Your task to perform on an android device: turn on improve location accuracy Image 0: 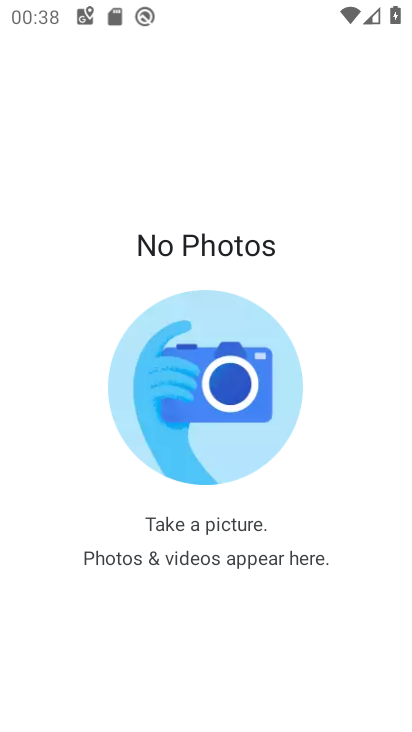
Step 0: drag from (218, 723) to (92, 85)
Your task to perform on an android device: turn on improve location accuracy Image 1: 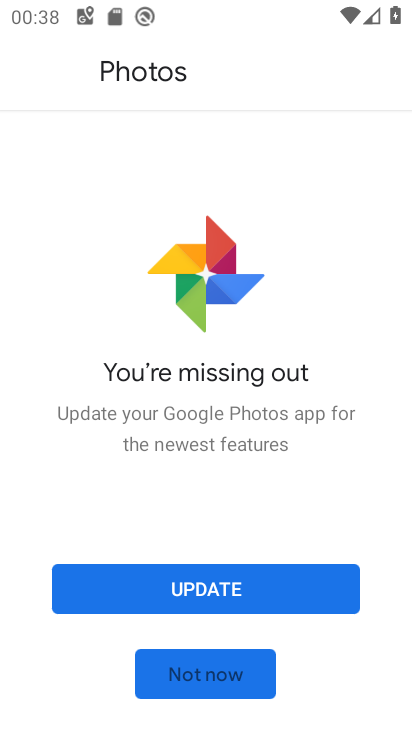
Step 1: press home button
Your task to perform on an android device: turn on improve location accuracy Image 2: 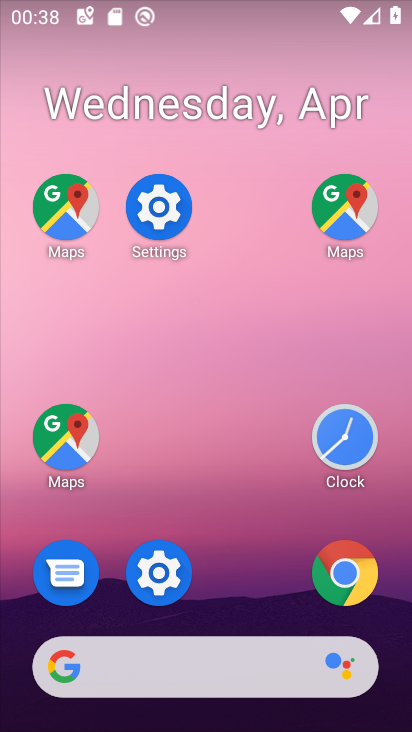
Step 2: click (156, 210)
Your task to perform on an android device: turn on improve location accuracy Image 3: 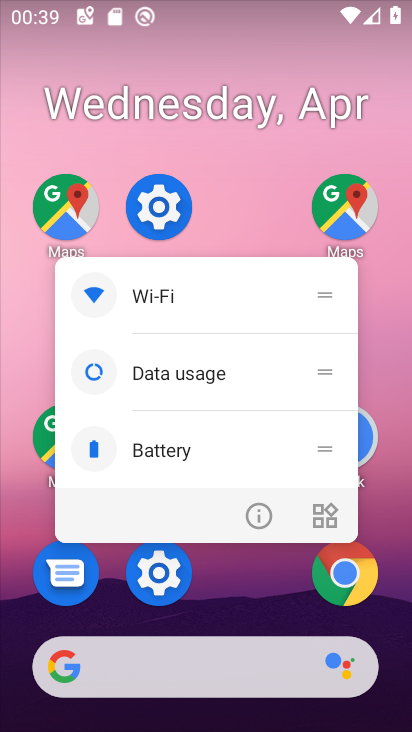
Step 3: click (154, 197)
Your task to perform on an android device: turn on improve location accuracy Image 4: 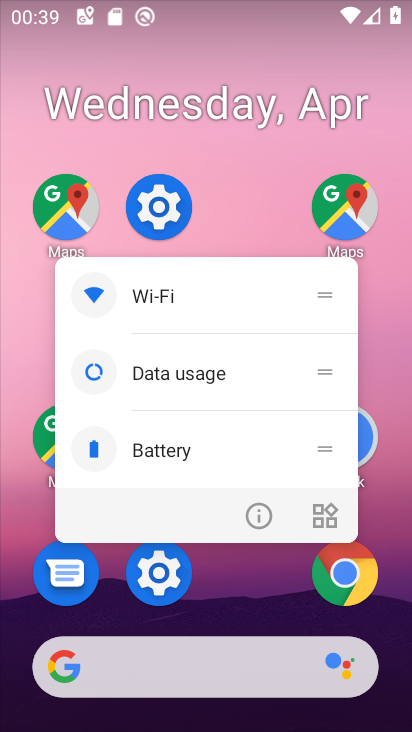
Step 4: click (164, 224)
Your task to perform on an android device: turn on improve location accuracy Image 5: 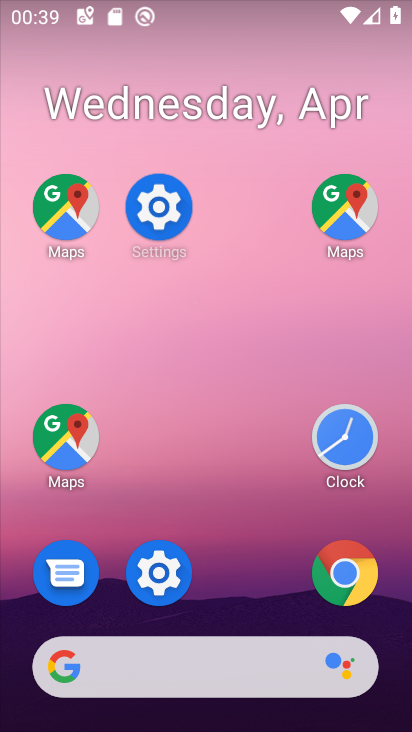
Step 5: click (153, 182)
Your task to perform on an android device: turn on improve location accuracy Image 6: 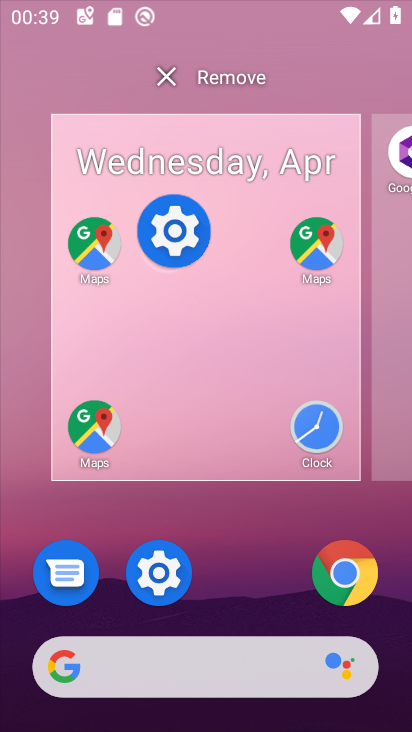
Step 6: click (161, 235)
Your task to perform on an android device: turn on improve location accuracy Image 7: 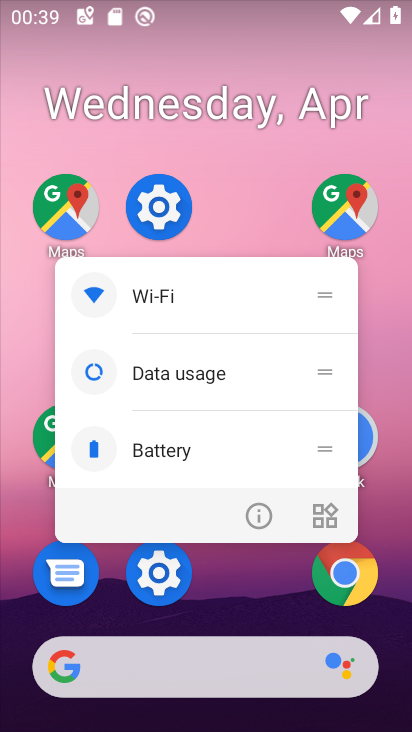
Step 7: drag from (261, 597) to (182, 208)
Your task to perform on an android device: turn on improve location accuracy Image 8: 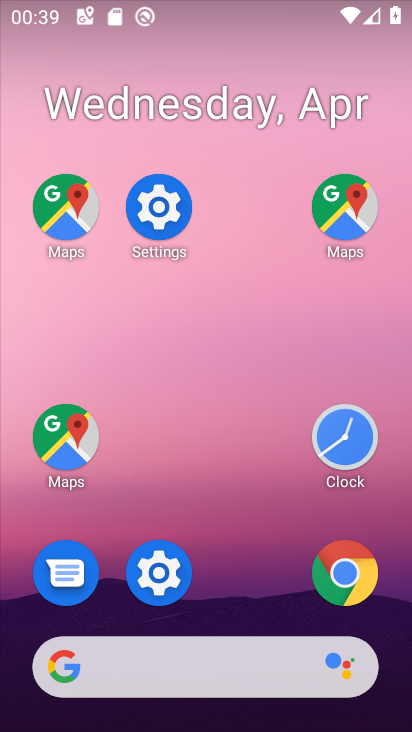
Step 8: click (201, 194)
Your task to perform on an android device: turn on improve location accuracy Image 9: 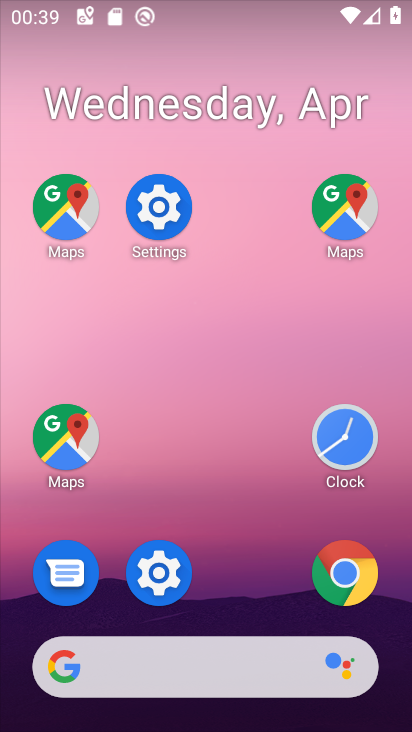
Step 9: click (201, 194)
Your task to perform on an android device: turn on improve location accuracy Image 10: 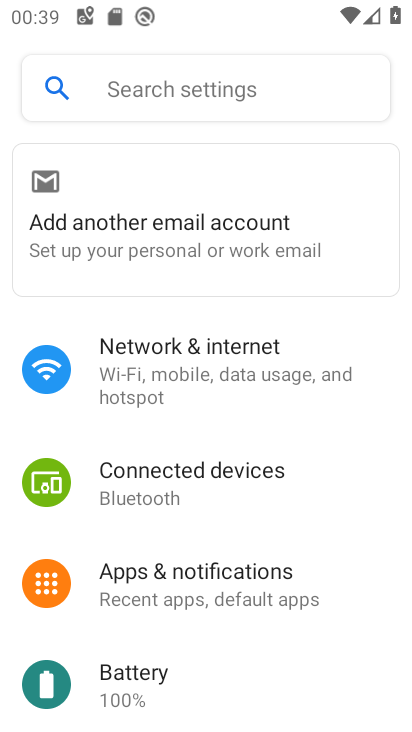
Step 10: drag from (241, 359) to (245, 205)
Your task to perform on an android device: turn on improve location accuracy Image 11: 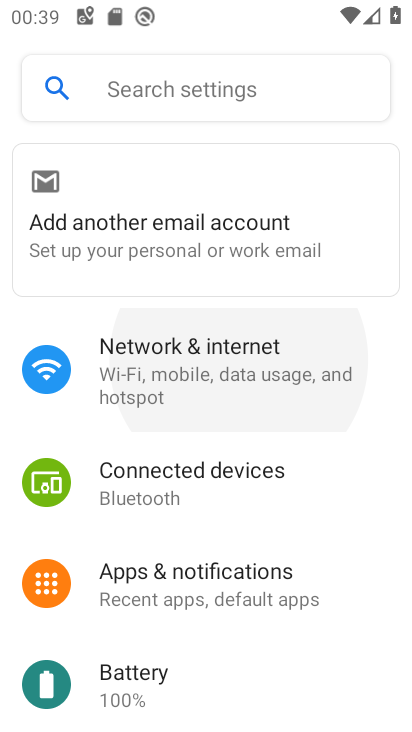
Step 11: drag from (146, 235) to (122, 377)
Your task to perform on an android device: turn on improve location accuracy Image 12: 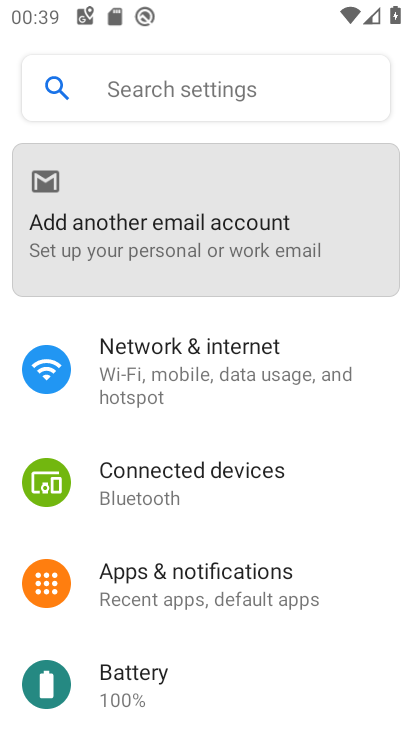
Step 12: drag from (202, 561) to (169, 344)
Your task to perform on an android device: turn on improve location accuracy Image 13: 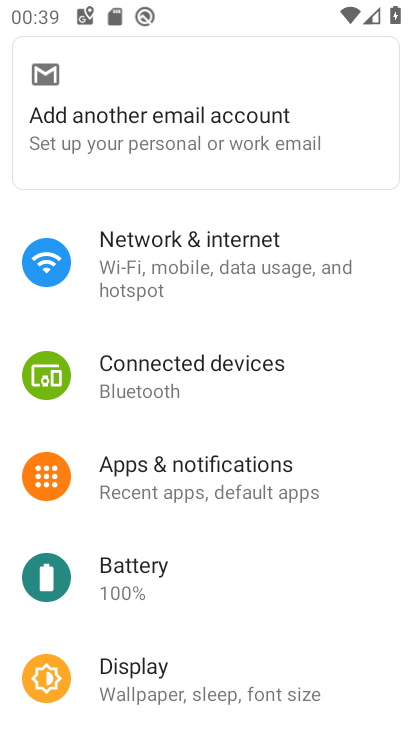
Step 13: click (199, 345)
Your task to perform on an android device: turn on improve location accuracy Image 14: 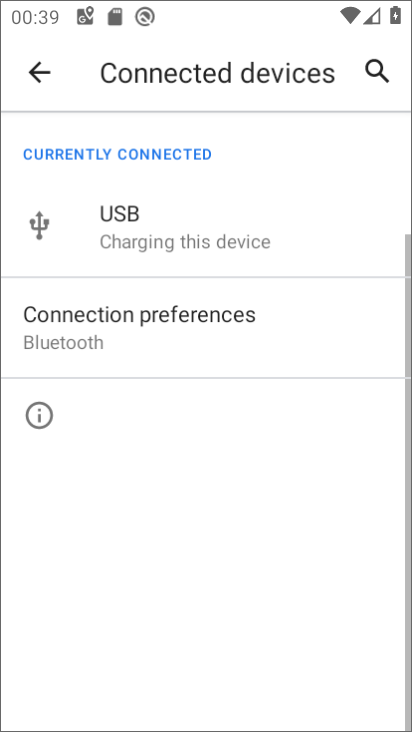
Step 14: drag from (235, 398) to (227, 305)
Your task to perform on an android device: turn on improve location accuracy Image 15: 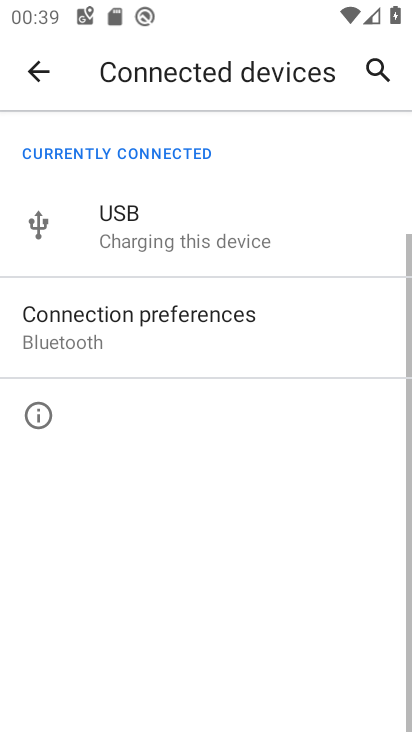
Step 15: click (29, 61)
Your task to perform on an android device: turn on improve location accuracy Image 16: 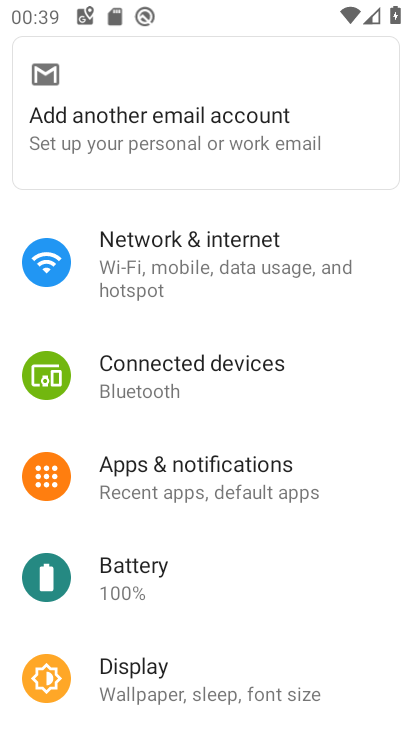
Step 16: drag from (153, 544) to (146, 318)
Your task to perform on an android device: turn on improve location accuracy Image 17: 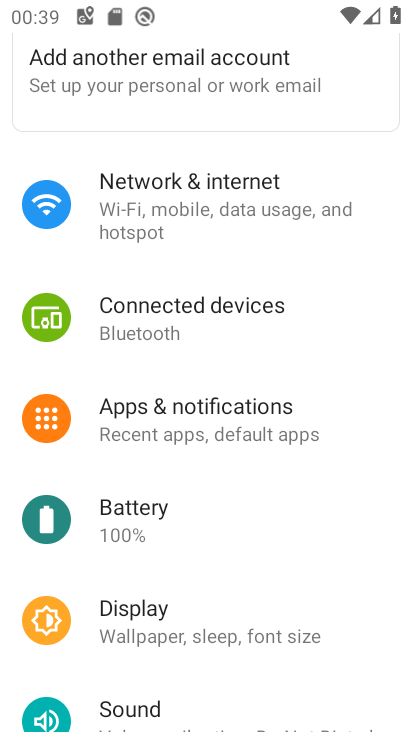
Step 17: drag from (178, 242) to (158, 157)
Your task to perform on an android device: turn on improve location accuracy Image 18: 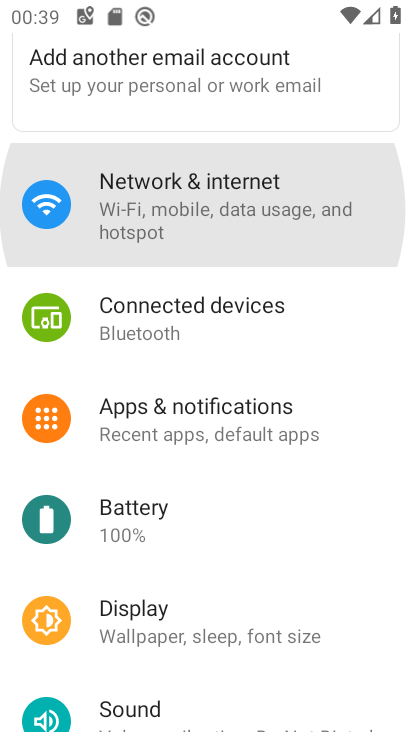
Step 18: drag from (198, 502) to (175, 93)
Your task to perform on an android device: turn on improve location accuracy Image 19: 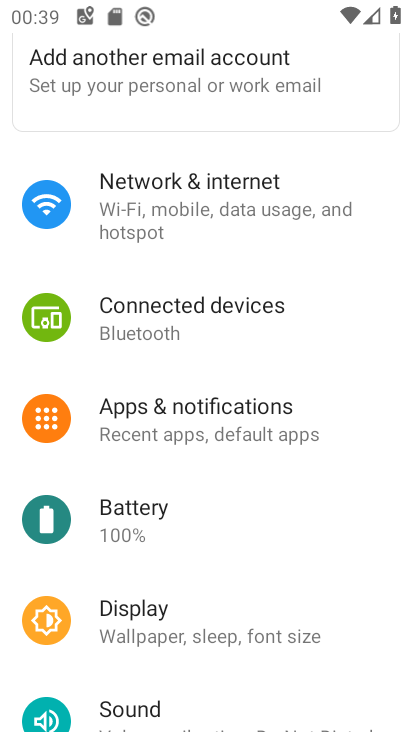
Step 19: drag from (235, 567) to (184, 140)
Your task to perform on an android device: turn on improve location accuracy Image 20: 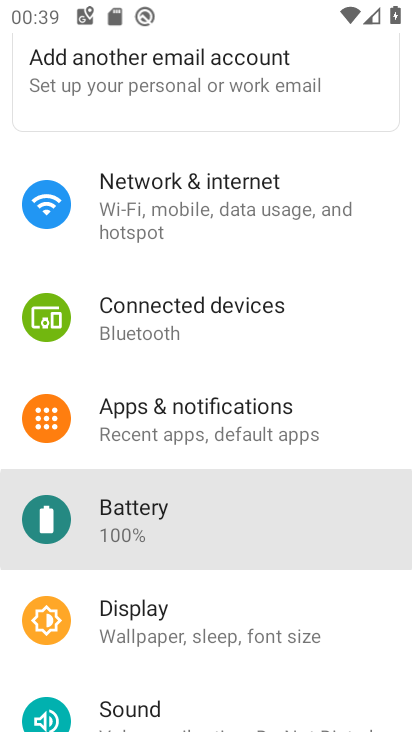
Step 20: drag from (167, 576) to (116, 67)
Your task to perform on an android device: turn on improve location accuracy Image 21: 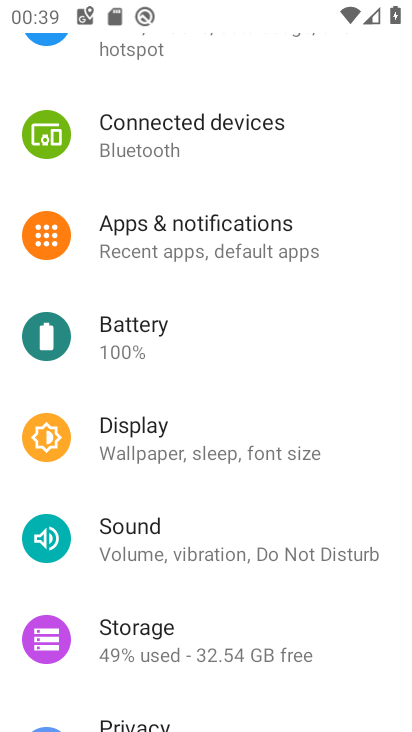
Step 21: drag from (186, 503) to (155, 146)
Your task to perform on an android device: turn on improve location accuracy Image 22: 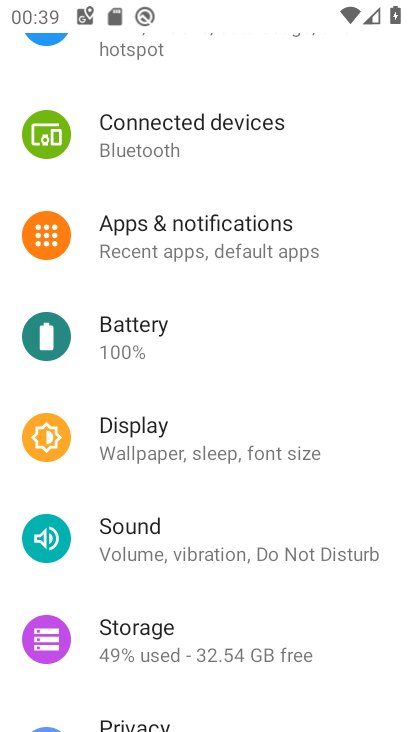
Step 22: drag from (194, 610) to (146, 155)
Your task to perform on an android device: turn on improve location accuracy Image 23: 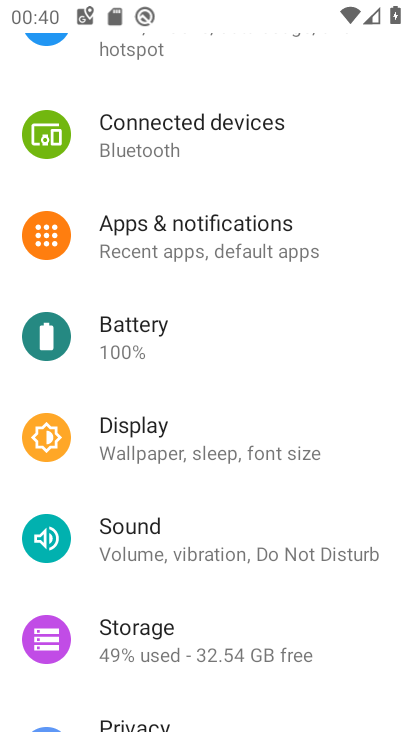
Step 23: drag from (293, 501) to (246, 208)
Your task to perform on an android device: turn on improve location accuracy Image 24: 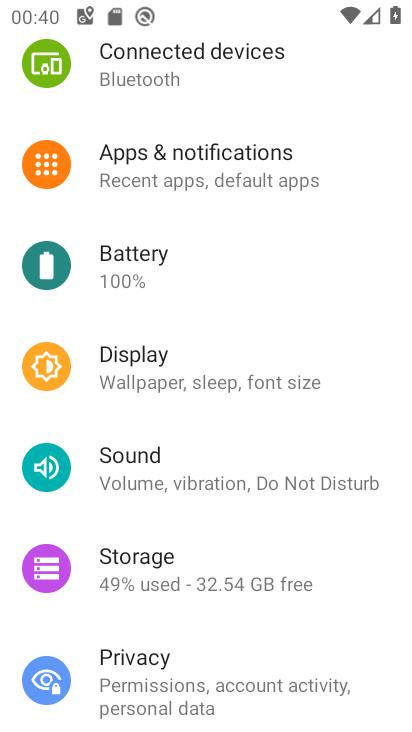
Step 24: drag from (229, 452) to (189, 233)
Your task to perform on an android device: turn on improve location accuracy Image 25: 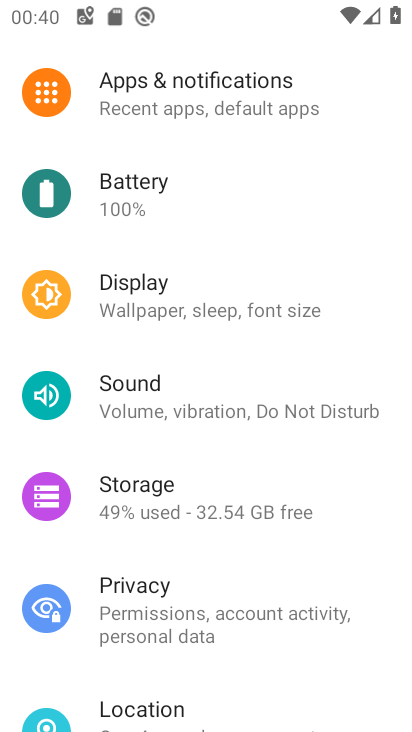
Step 25: drag from (188, 439) to (162, 284)
Your task to perform on an android device: turn on improve location accuracy Image 26: 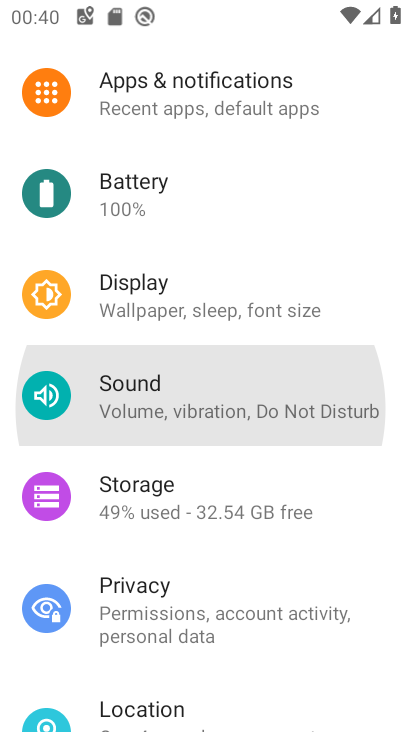
Step 26: click (97, 247)
Your task to perform on an android device: turn on improve location accuracy Image 27: 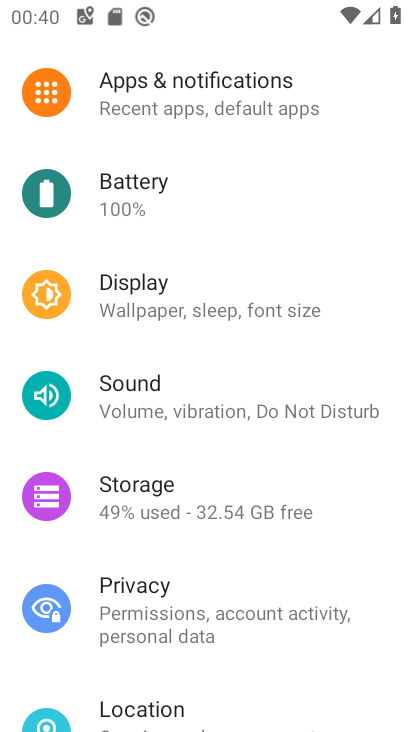
Step 27: drag from (160, 567) to (150, 234)
Your task to perform on an android device: turn on improve location accuracy Image 28: 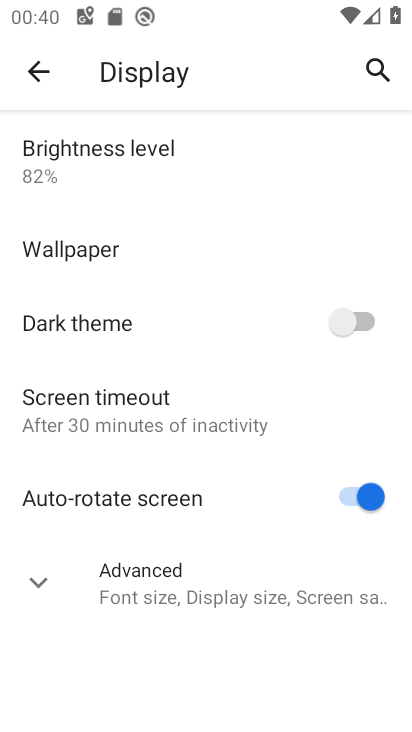
Step 28: click (35, 67)
Your task to perform on an android device: turn on improve location accuracy Image 29: 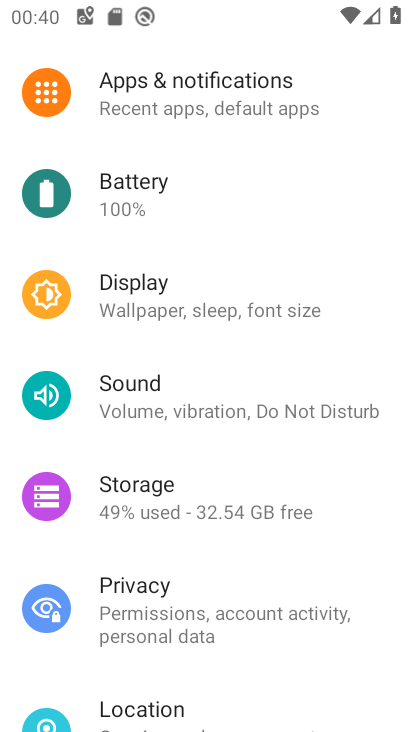
Step 29: click (145, 690)
Your task to perform on an android device: turn on improve location accuracy Image 30: 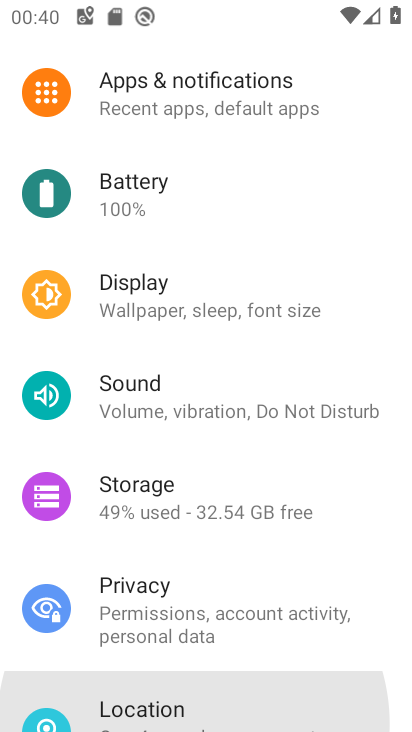
Step 30: click (149, 692)
Your task to perform on an android device: turn on improve location accuracy Image 31: 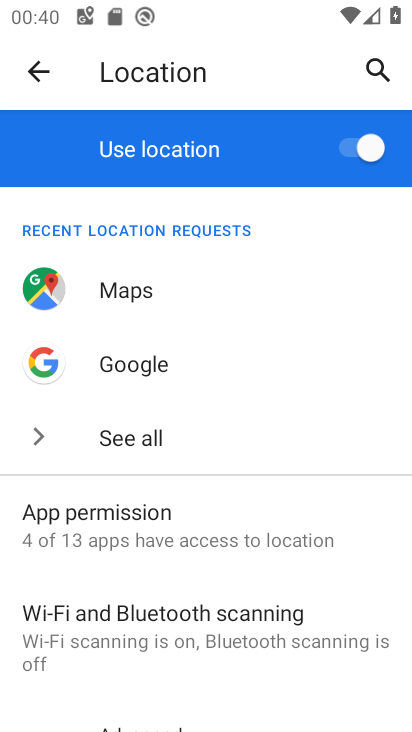
Step 31: click (104, 521)
Your task to perform on an android device: turn on improve location accuracy Image 32: 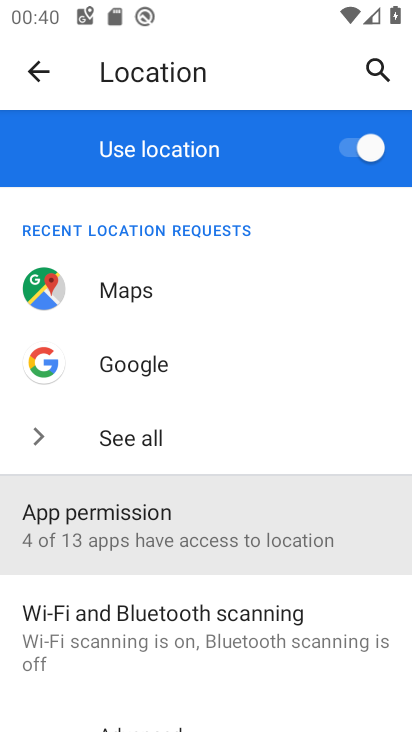
Step 32: click (104, 521)
Your task to perform on an android device: turn on improve location accuracy Image 33: 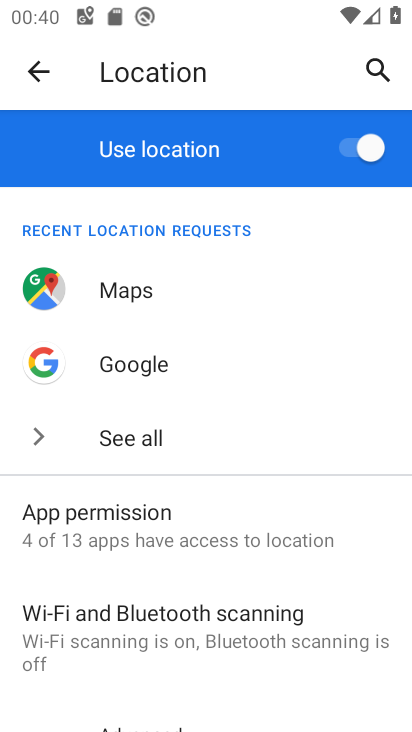
Step 33: click (104, 521)
Your task to perform on an android device: turn on improve location accuracy Image 34: 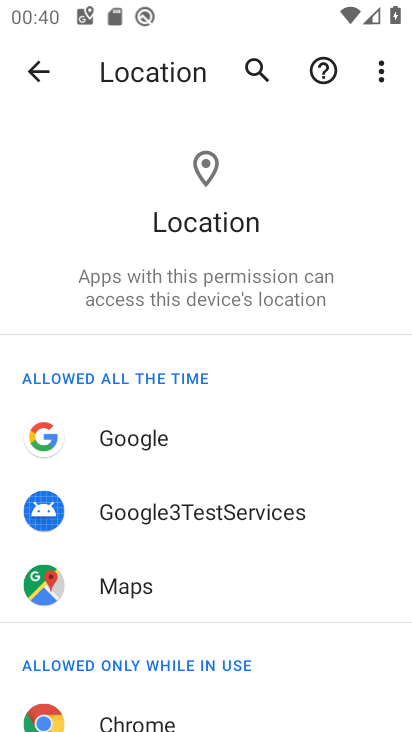
Step 34: drag from (192, 518) to (148, 157)
Your task to perform on an android device: turn on improve location accuracy Image 35: 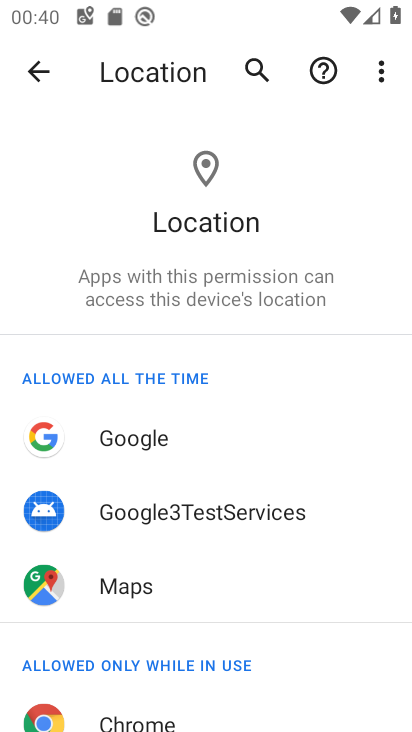
Step 35: click (37, 63)
Your task to perform on an android device: turn on improve location accuracy Image 36: 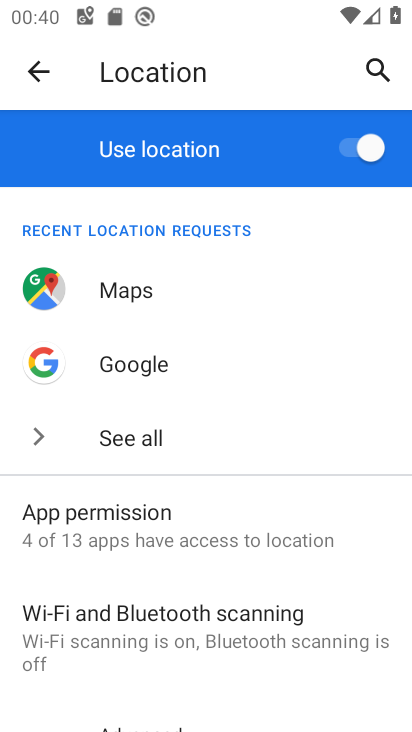
Step 36: click (34, 64)
Your task to perform on an android device: turn on improve location accuracy Image 37: 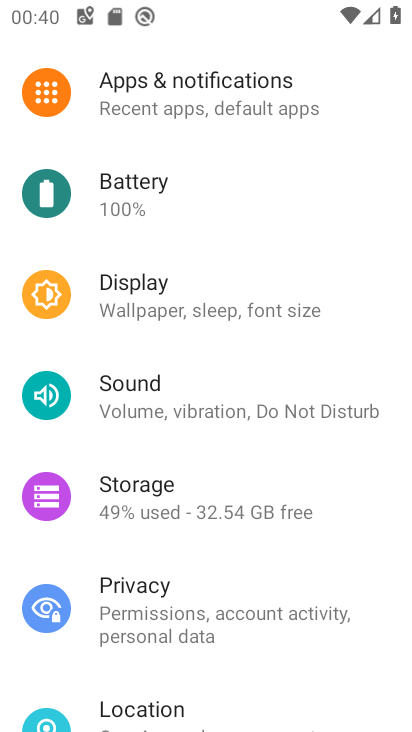
Step 37: drag from (228, 608) to (214, 257)
Your task to perform on an android device: turn on improve location accuracy Image 38: 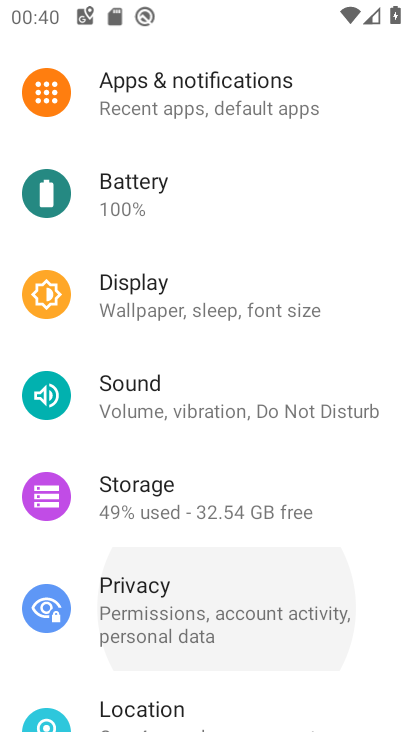
Step 38: drag from (243, 457) to (225, 71)
Your task to perform on an android device: turn on improve location accuracy Image 39: 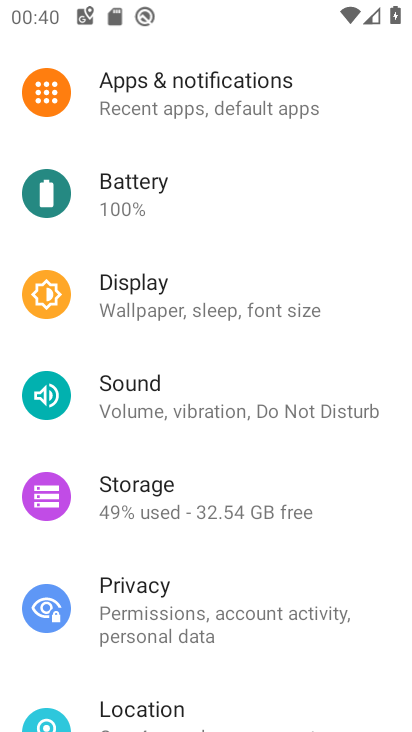
Step 39: click (205, 174)
Your task to perform on an android device: turn on improve location accuracy Image 40: 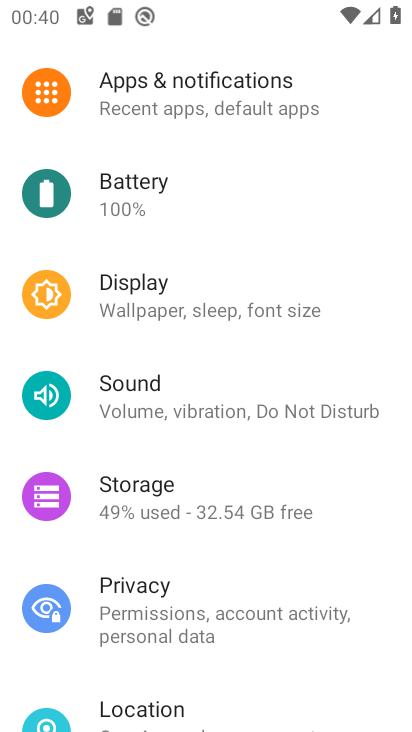
Step 40: drag from (292, 431) to (265, 206)
Your task to perform on an android device: turn on improve location accuracy Image 41: 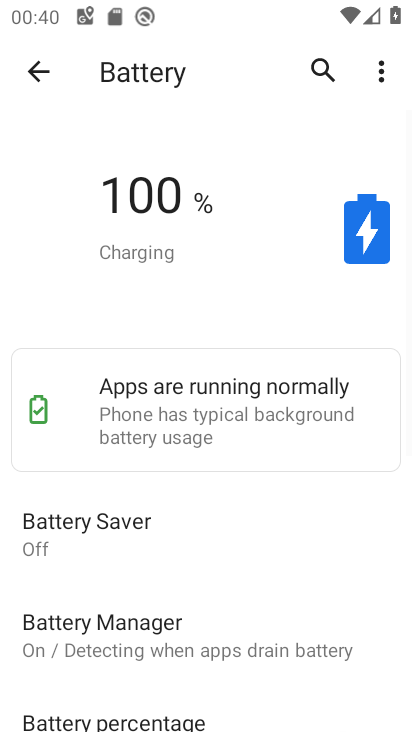
Step 41: click (36, 70)
Your task to perform on an android device: turn on improve location accuracy Image 42: 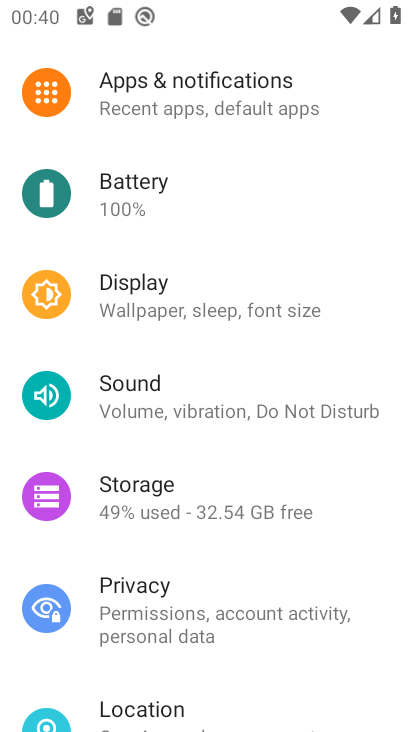
Step 42: drag from (161, 654) to (103, 204)
Your task to perform on an android device: turn on improve location accuracy Image 43: 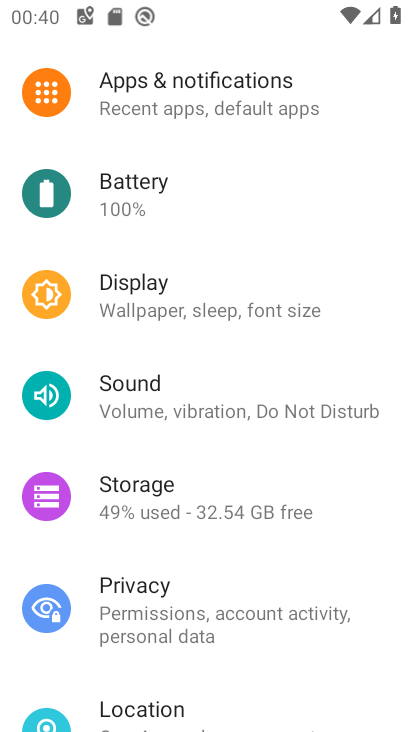
Step 43: drag from (285, 507) to (222, 21)
Your task to perform on an android device: turn on improve location accuracy Image 44: 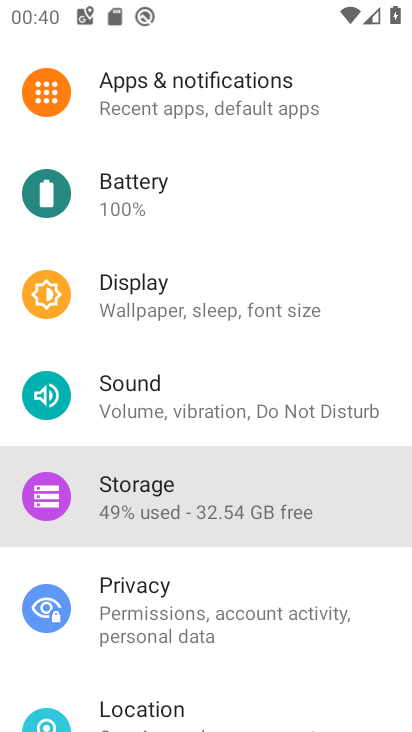
Step 44: drag from (299, 494) to (202, 135)
Your task to perform on an android device: turn on improve location accuracy Image 45: 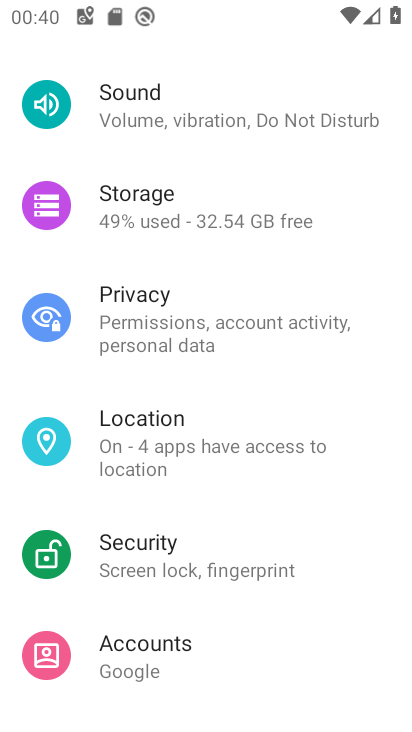
Step 45: click (139, 434)
Your task to perform on an android device: turn on improve location accuracy Image 46: 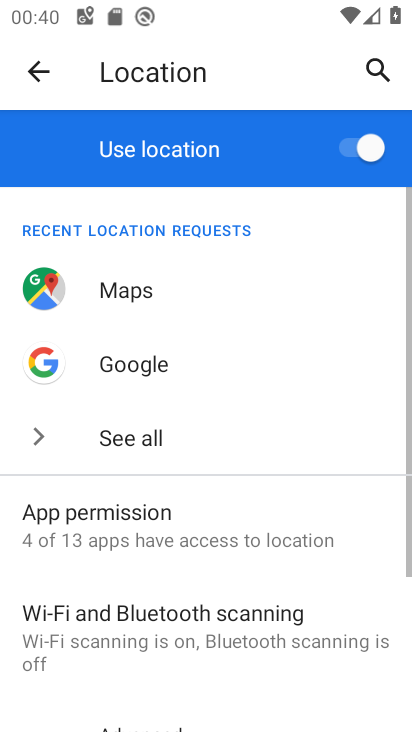
Step 46: drag from (246, 420) to (169, 92)
Your task to perform on an android device: turn on improve location accuracy Image 47: 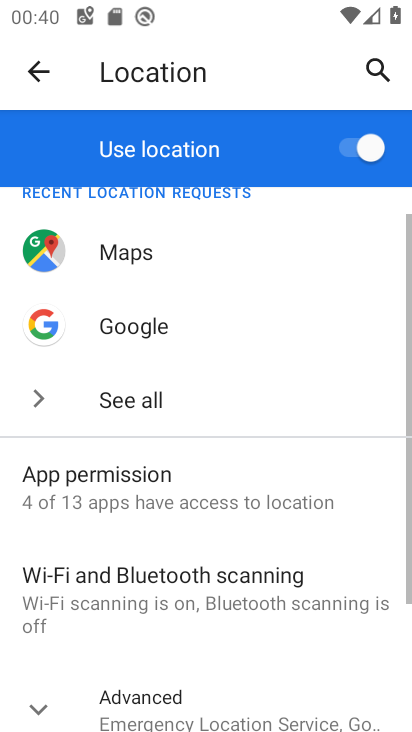
Step 47: drag from (234, 359) to (230, 38)
Your task to perform on an android device: turn on improve location accuracy Image 48: 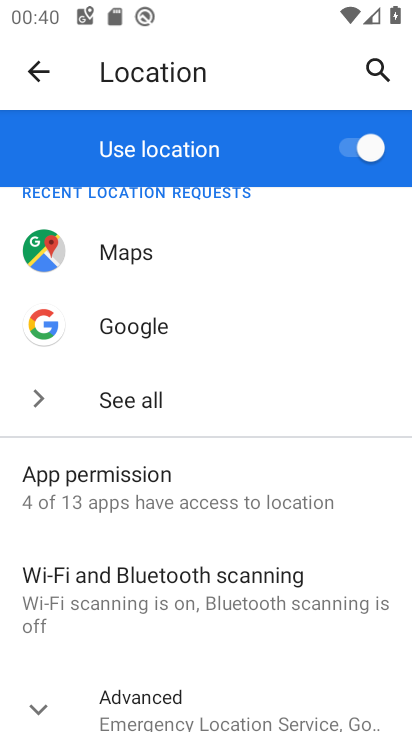
Step 48: drag from (207, 380) to (194, 216)
Your task to perform on an android device: turn on improve location accuracy Image 49: 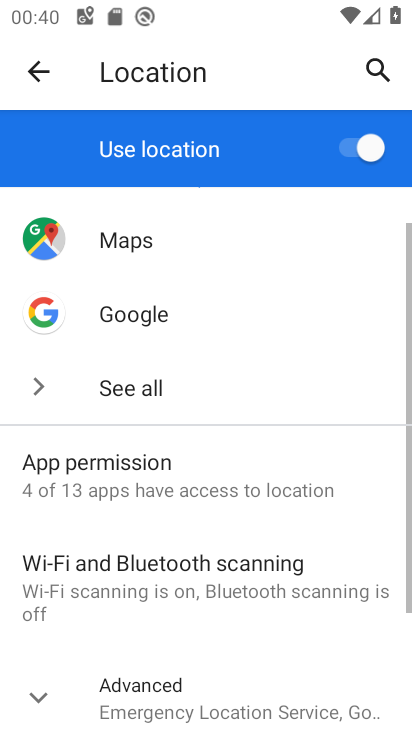
Step 49: drag from (256, 374) to (220, 140)
Your task to perform on an android device: turn on improve location accuracy Image 50: 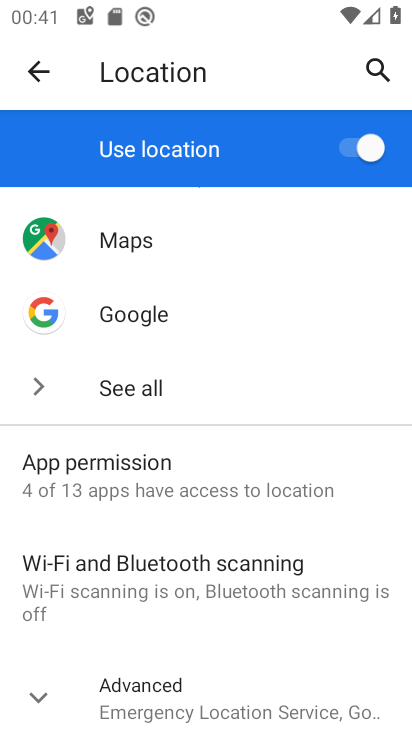
Step 50: click (161, 708)
Your task to perform on an android device: turn on improve location accuracy Image 51: 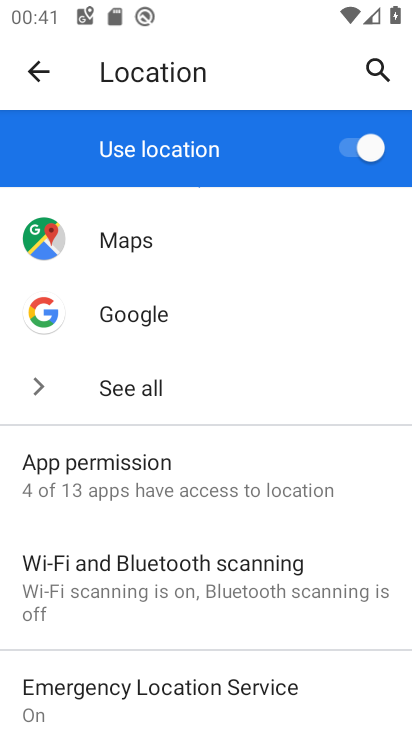
Step 51: drag from (233, 520) to (211, 201)
Your task to perform on an android device: turn on improve location accuracy Image 52: 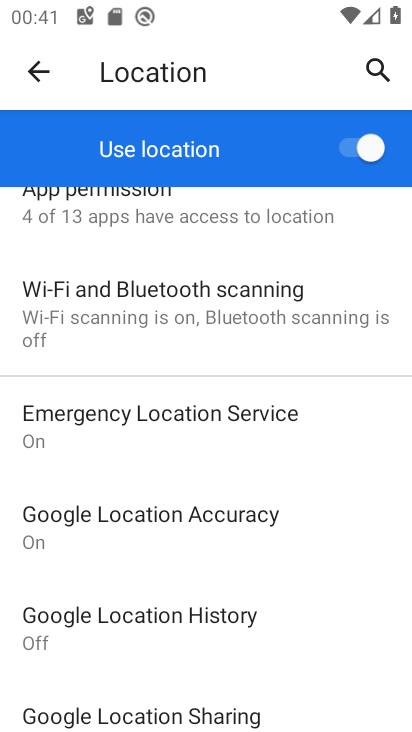
Step 52: click (176, 514)
Your task to perform on an android device: turn on improve location accuracy Image 53: 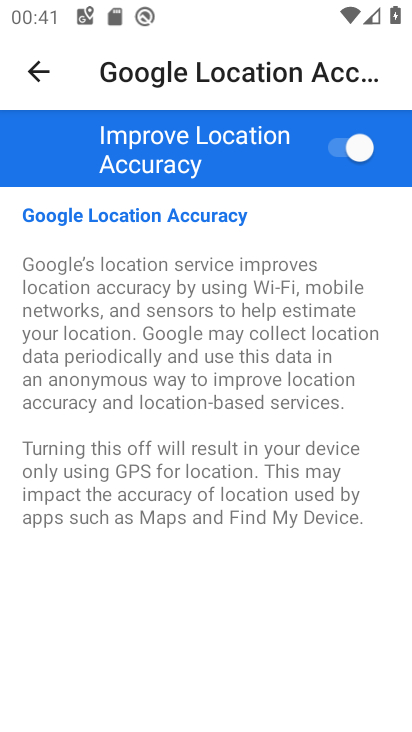
Step 53: task complete